Your task to perform on an android device: delete the emails in spam in the gmail app Image 0: 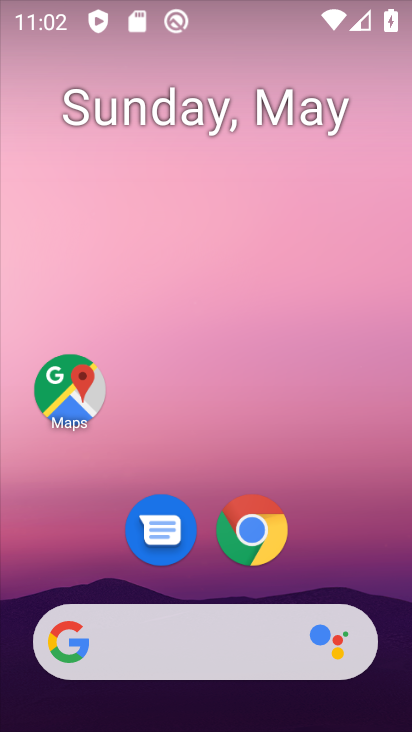
Step 0: drag from (131, 564) to (285, 11)
Your task to perform on an android device: delete the emails in spam in the gmail app Image 1: 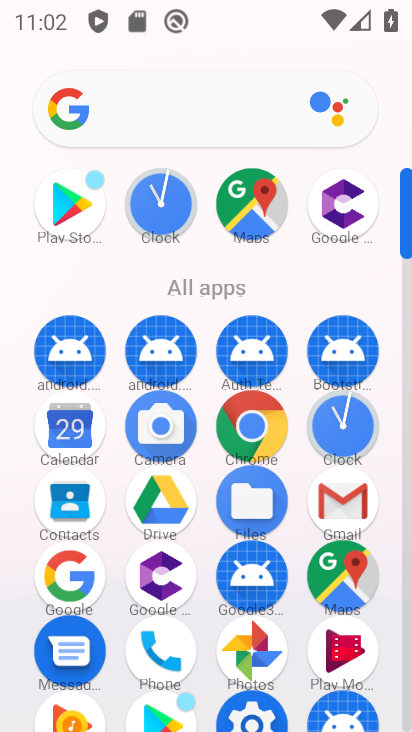
Step 1: click (358, 489)
Your task to perform on an android device: delete the emails in spam in the gmail app Image 2: 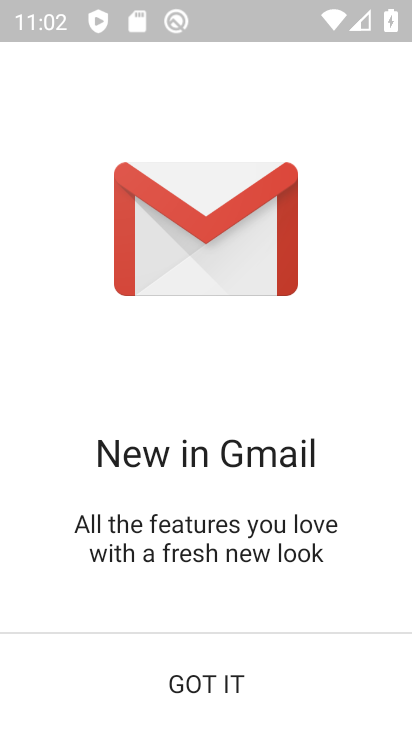
Step 2: click (198, 656)
Your task to perform on an android device: delete the emails in spam in the gmail app Image 3: 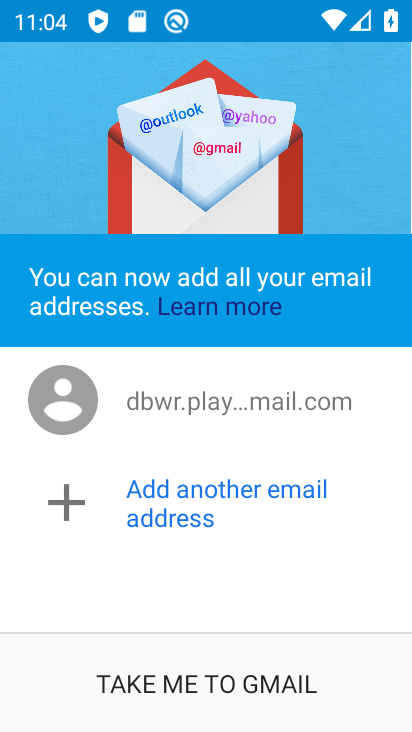
Step 3: click (204, 682)
Your task to perform on an android device: delete the emails in spam in the gmail app Image 4: 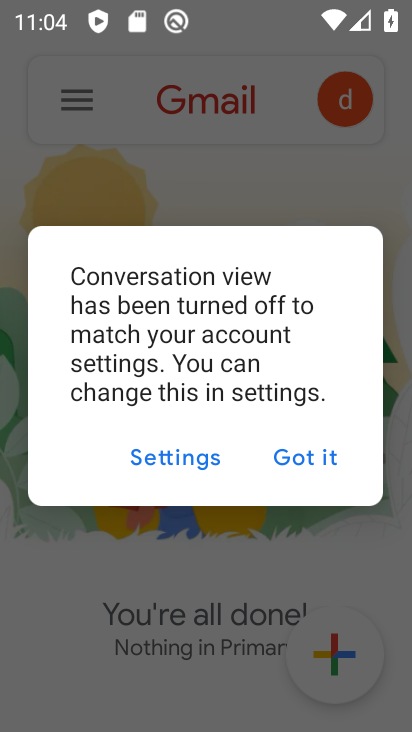
Step 4: click (295, 455)
Your task to perform on an android device: delete the emails in spam in the gmail app Image 5: 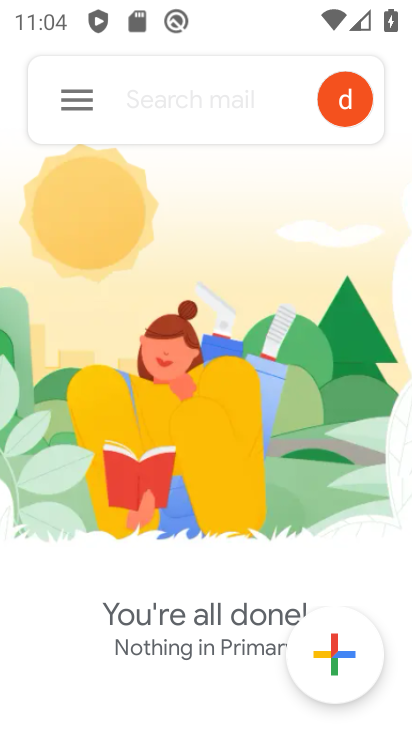
Step 5: click (73, 104)
Your task to perform on an android device: delete the emails in spam in the gmail app Image 6: 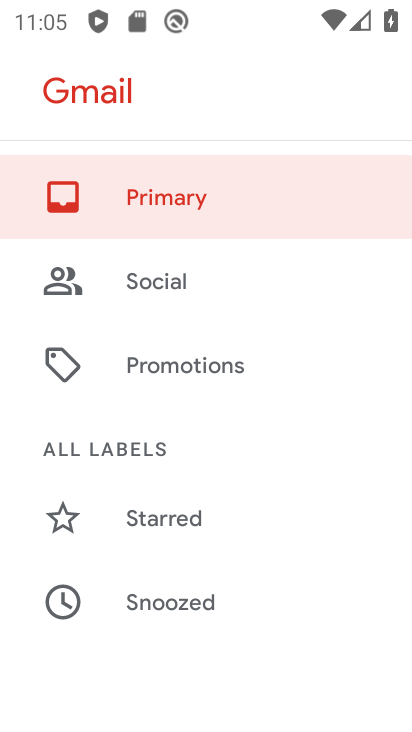
Step 6: drag from (169, 658) to (281, 87)
Your task to perform on an android device: delete the emails in spam in the gmail app Image 7: 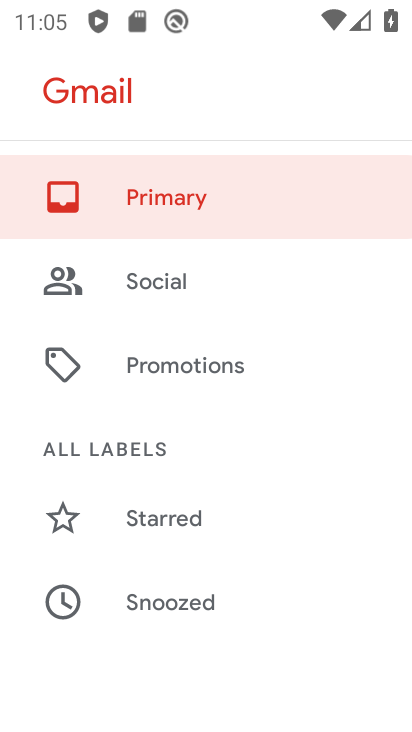
Step 7: drag from (188, 544) to (230, 42)
Your task to perform on an android device: delete the emails in spam in the gmail app Image 8: 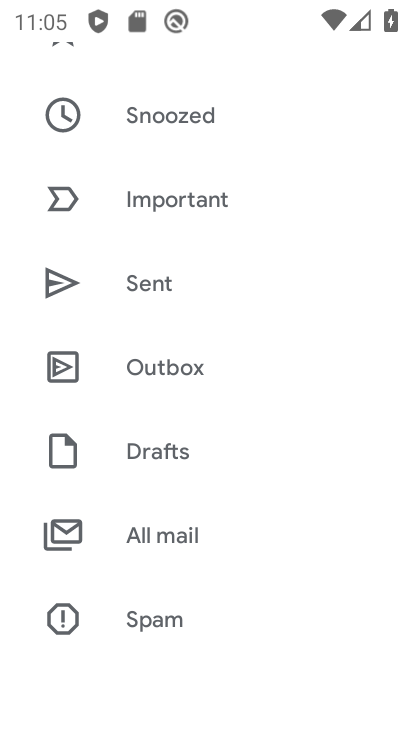
Step 8: click (163, 619)
Your task to perform on an android device: delete the emails in spam in the gmail app Image 9: 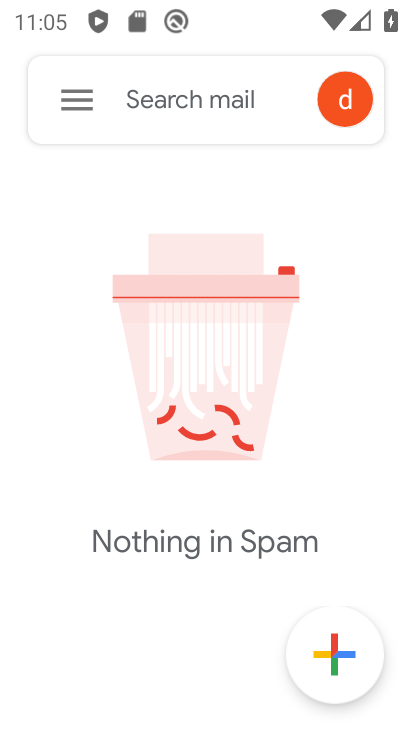
Step 9: task complete